Your task to perform on an android device: turn on javascript in the chrome app Image 0: 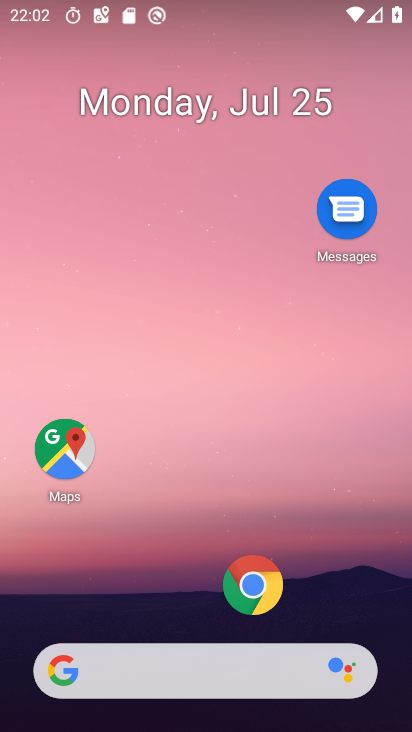
Step 0: press home button
Your task to perform on an android device: turn on javascript in the chrome app Image 1: 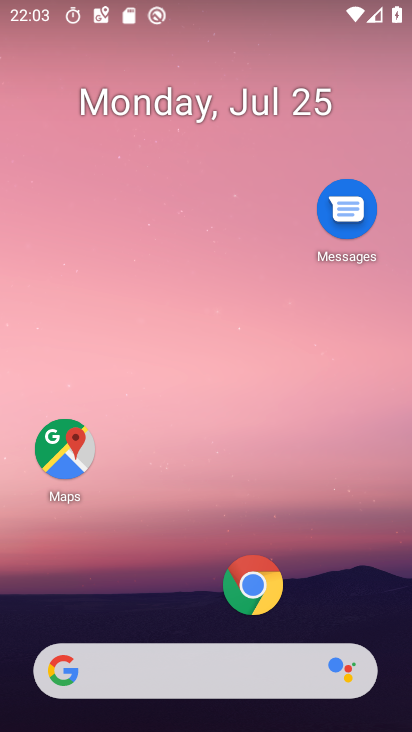
Step 1: click (261, 580)
Your task to perform on an android device: turn on javascript in the chrome app Image 2: 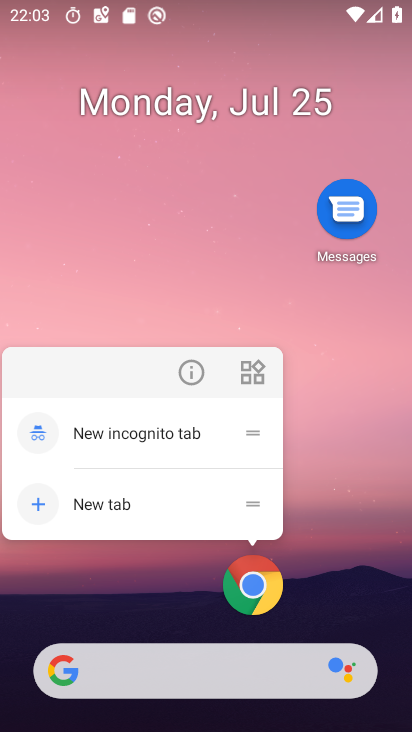
Step 2: click (244, 577)
Your task to perform on an android device: turn on javascript in the chrome app Image 3: 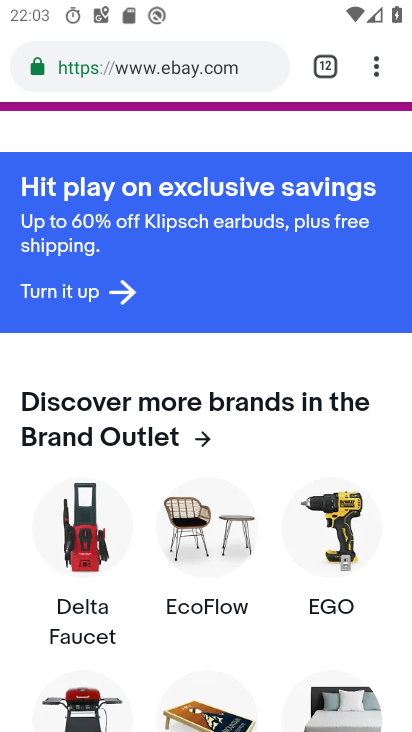
Step 3: drag from (377, 65) to (229, 594)
Your task to perform on an android device: turn on javascript in the chrome app Image 4: 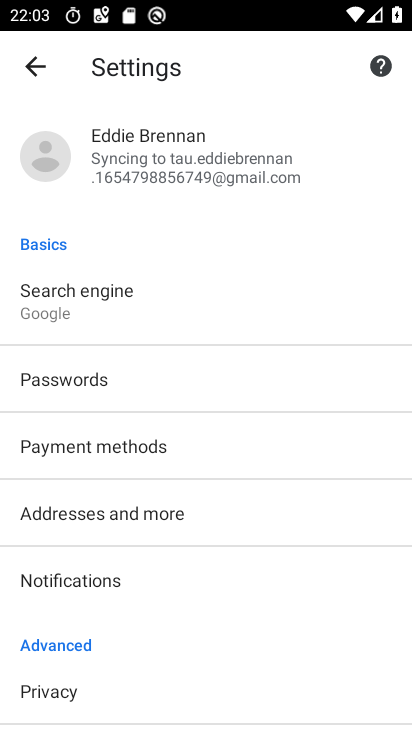
Step 4: drag from (227, 674) to (317, 199)
Your task to perform on an android device: turn on javascript in the chrome app Image 5: 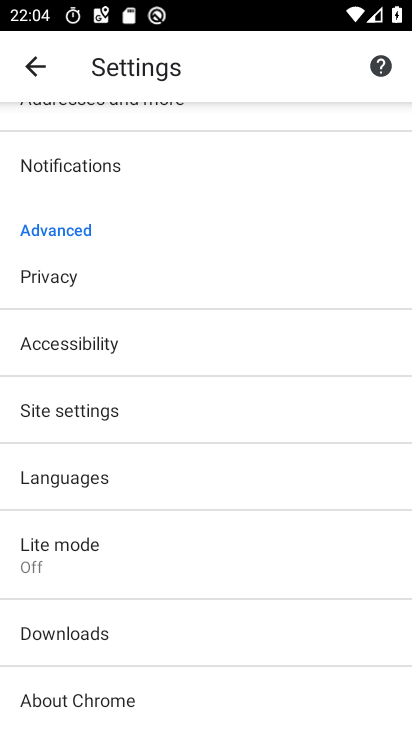
Step 5: click (123, 422)
Your task to perform on an android device: turn on javascript in the chrome app Image 6: 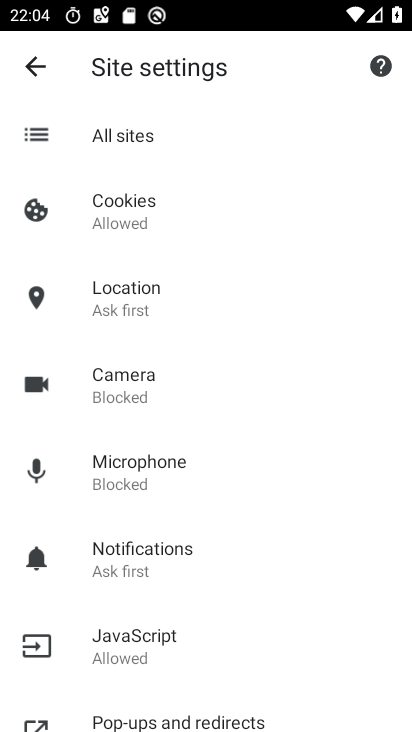
Step 6: click (124, 653)
Your task to perform on an android device: turn on javascript in the chrome app Image 7: 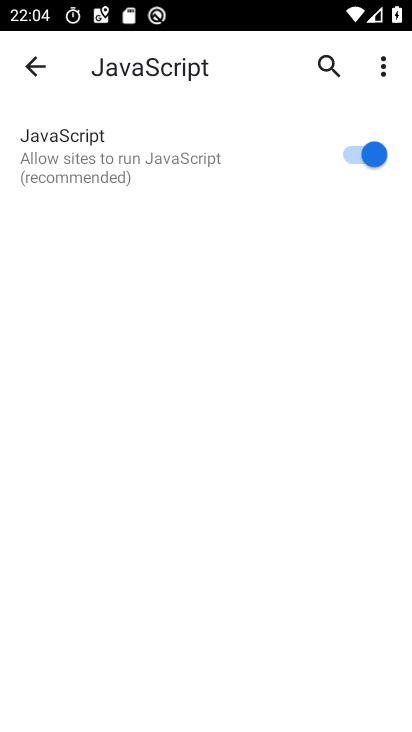
Step 7: task complete